Your task to perform on an android device: Search for Italian restaurants on Maps Image 0: 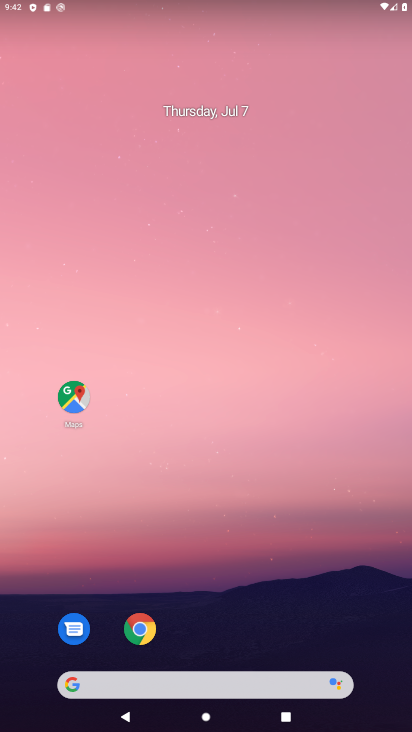
Step 0: click (72, 400)
Your task to perform on an android device: Search for Italian restaurants on Maps Image 1: 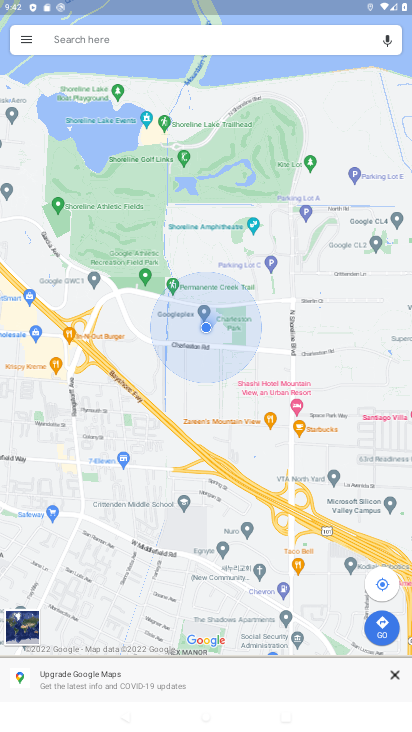
Step 1: click (60, 41)
Your task to perform on an android device: Search for Italian restaurants on Maps Image 2: 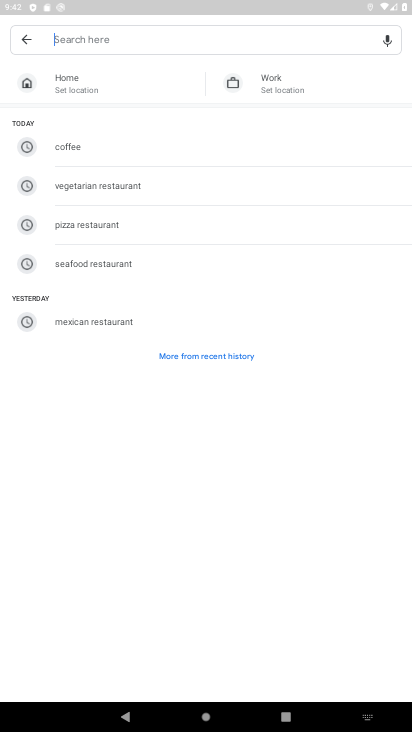
Step 2: type " Italian restaurants"
Your task to perform on an android device: Search for Italian restaurants on Maps Image 3: 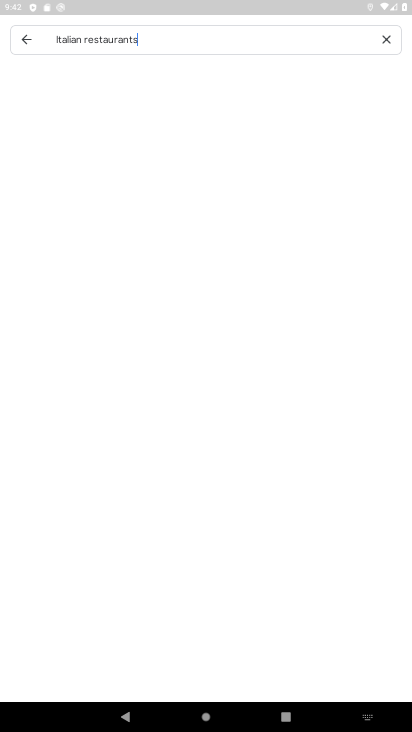
Step 3: type ""
Your task to perform on an android device: Search for Italian restaurants on Maps Image 4: 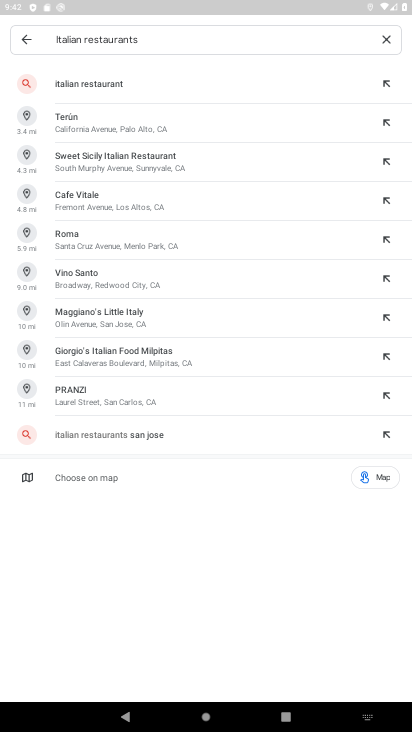
Step 4: click (112, 87)
Your task to perform on an android device: Search for Italian restaurants on Maps Image 5: 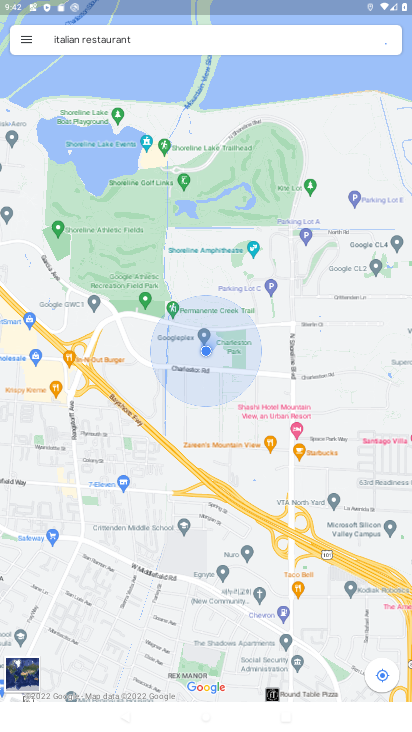
Step 5: task complete